Your task to perform on an android device: Open the phone app and click the voicemail tab. Image 0: 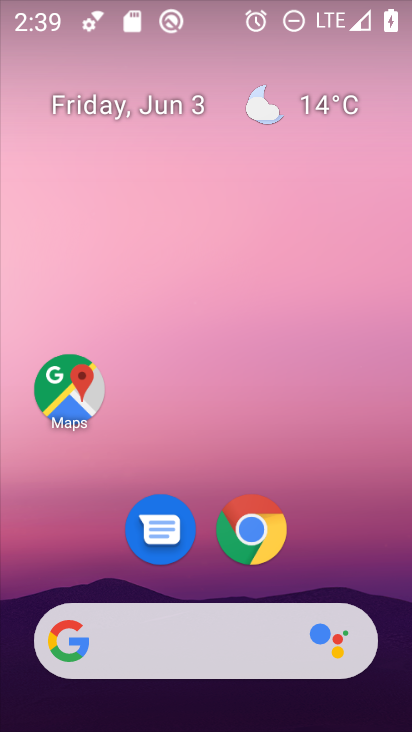
Step 0: drag from (368, 571) to (359, 257)
Your task to perform on an android device: Open the phone app and click the voicemail tab. Image 1: 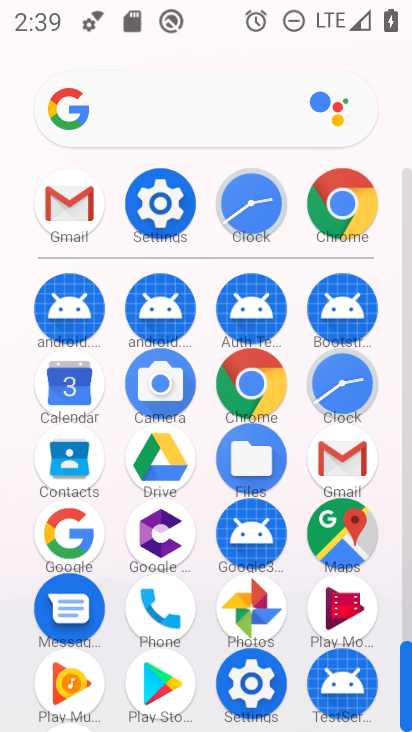
Step 1: click (338, 611)
Your task to perform on an android device: Open the phone app and click the voicemail tab. Image 2: 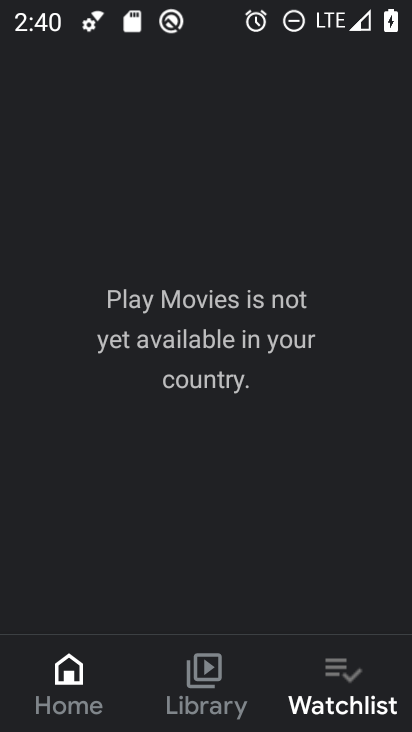
Step 2: task complete